Your task to perform on an android device: set an alarm Image 0: 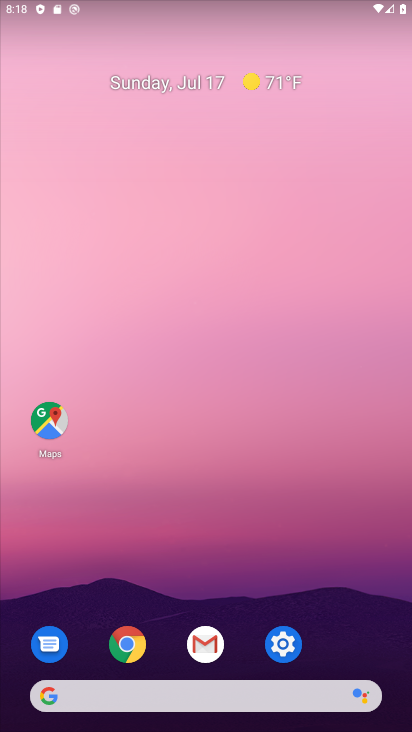
Step 0: press home button
Your task to perform on an android device: set an alarm Image 1: 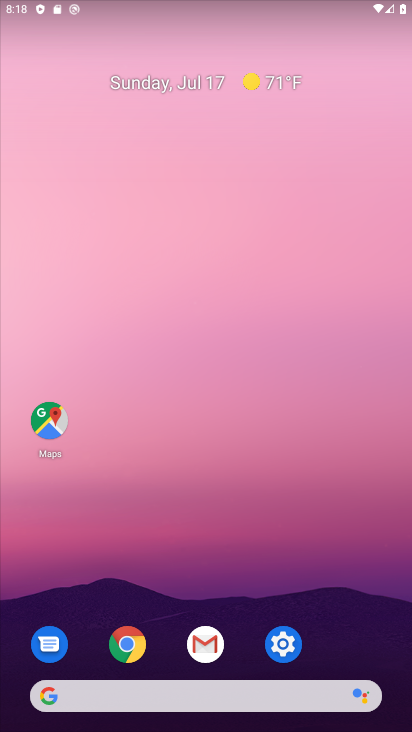
Step 1: drag from (251, 696) to (137, 121)
Your task to perform on an android device: set an alarm Image 2: 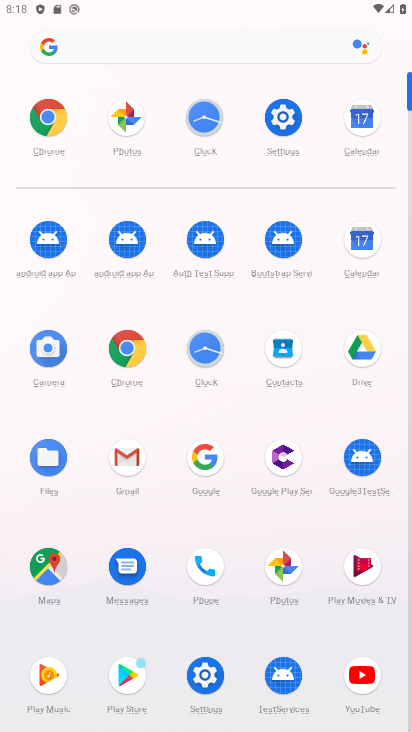
Step 2: click (212, 362)
Your task to perform on an android device: set an alarm Image 3: 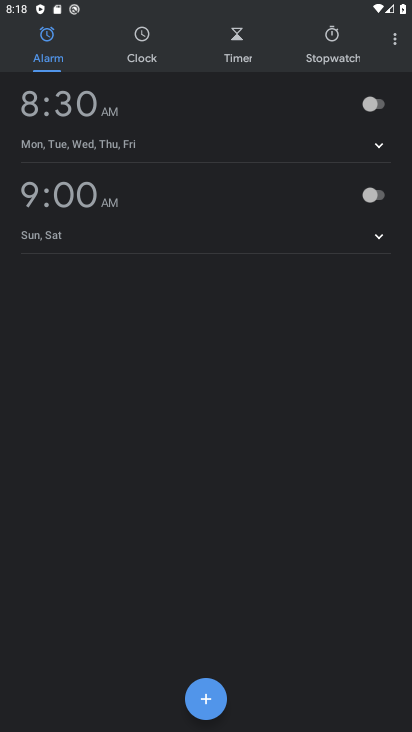
Step 3: click (368, 102)
Your task to perform on an android device: set an alarm Image 4: 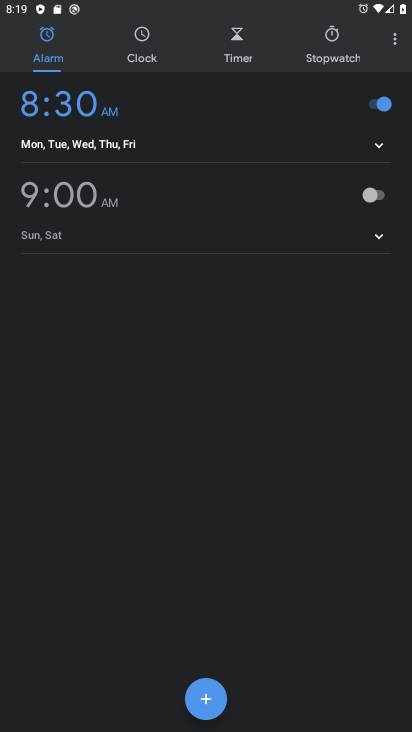
Step 4: task complete